Your task to perform on an android device: star an email in the gmail app Image 0: 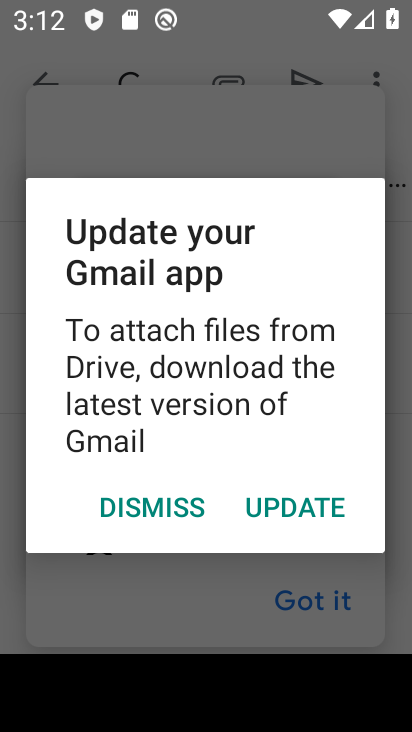
Step 0: press home button
Your task to perform on an android device: star an email in the gmail app Image 1: 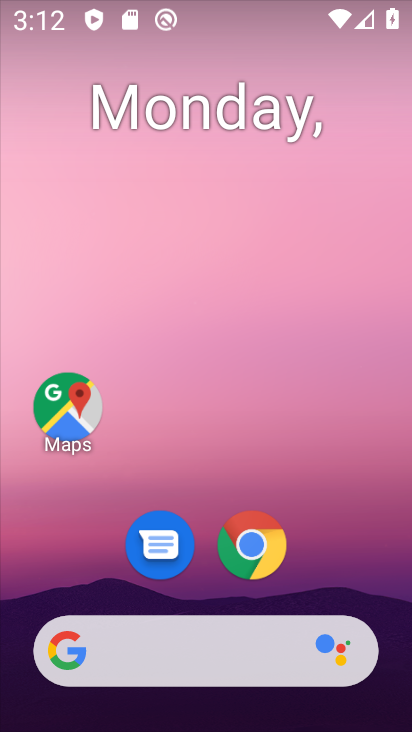
Step 1: drag from (390, 653) to (274, 211)
Your task to perform on an android device: star an email in the gmail app Image 2: 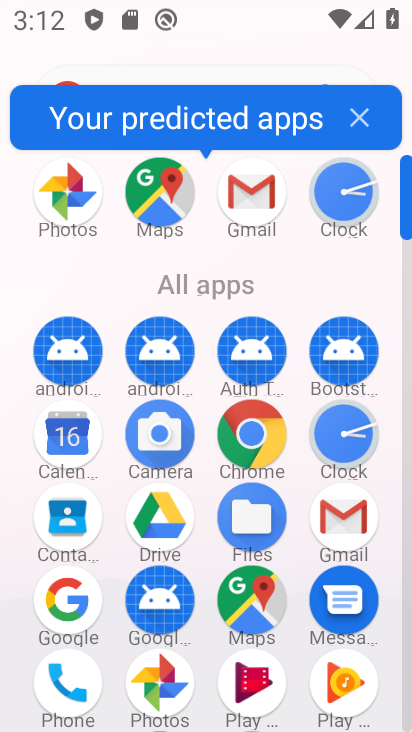
Step 2: click (340, 520)
Your task to perform on an android device: star an email in the gmail app Image 3: 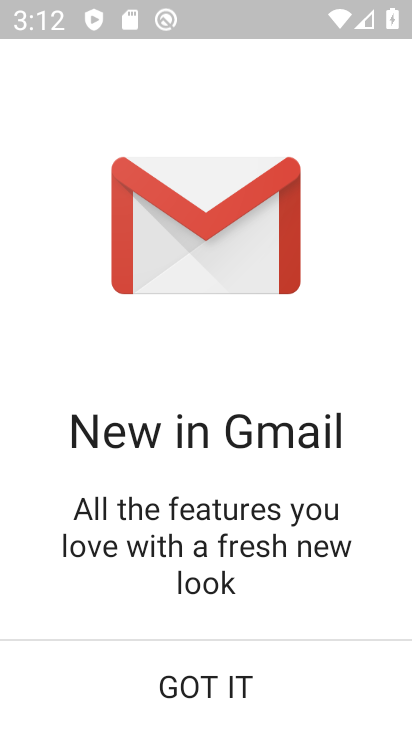
Step 3: click (223, 687)
Your task to perform on an android device: star an email in the gmail app Image 4: 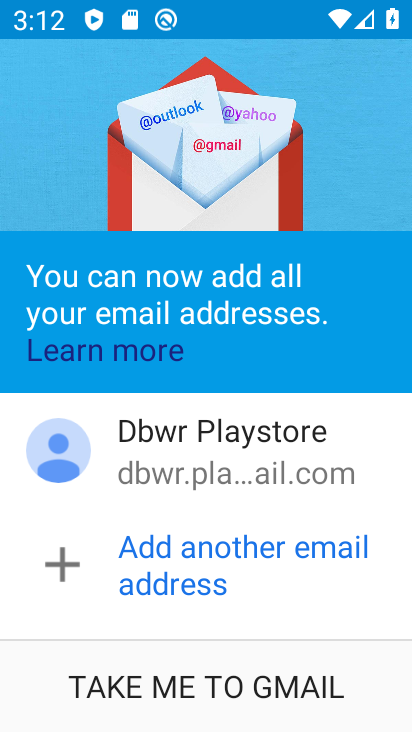
Step 4: click (223, 687)
Your task to perform on an android device: star an email in the gmail app Image 5: 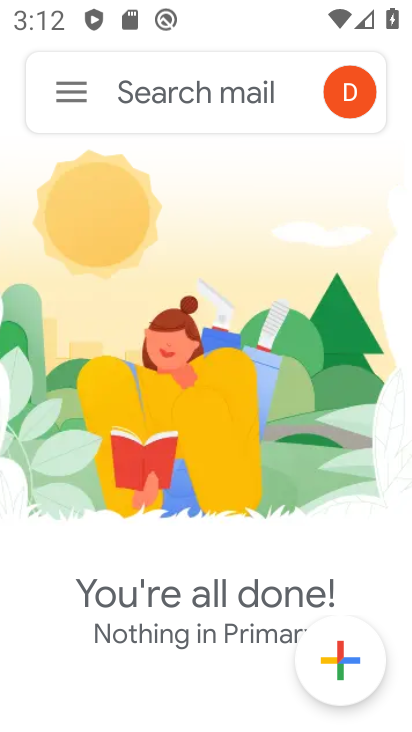
Step 5: click (69, 91)
Your task to perform on an android device: star an email in the gmail app Image 6: 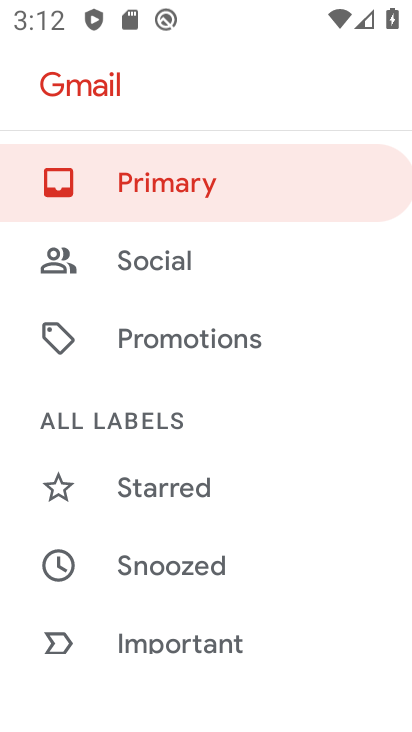
Step 6: click (201, 175)
Your task to perform on an android device: star an email in the gmail app Image 7: 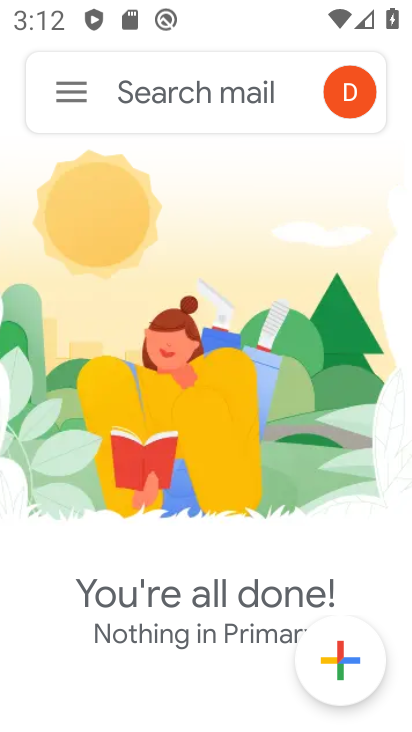
Step 7: task complete